Your task to perform on an android device: toggle wifi Image 0: 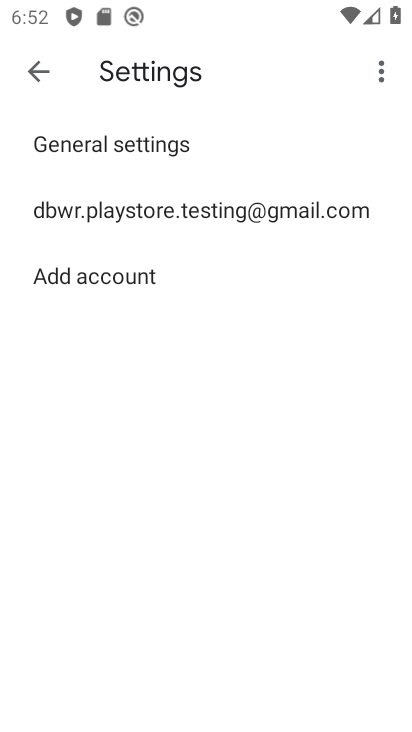
Step 0: press home button
Your task to perform on an android device: toggle wifi Image 1: 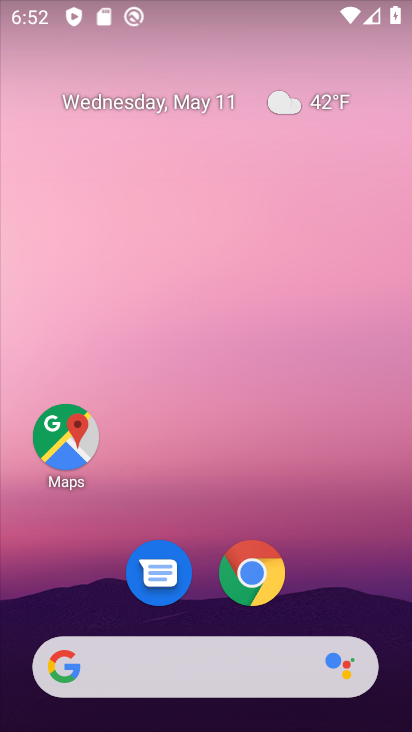
Step 1: drag from (323, 599) to (315, 172)
Your task to perform on an android device: toggle wifi Image 2: 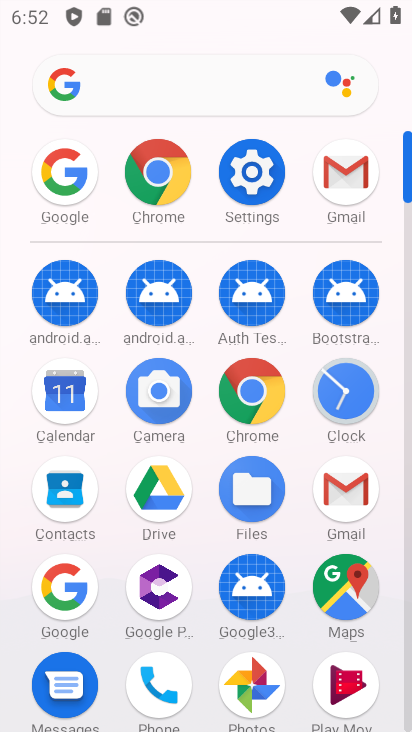
Step 2: click (256, 182)
Your task to perform on an android device: toggle wifi Image 3: 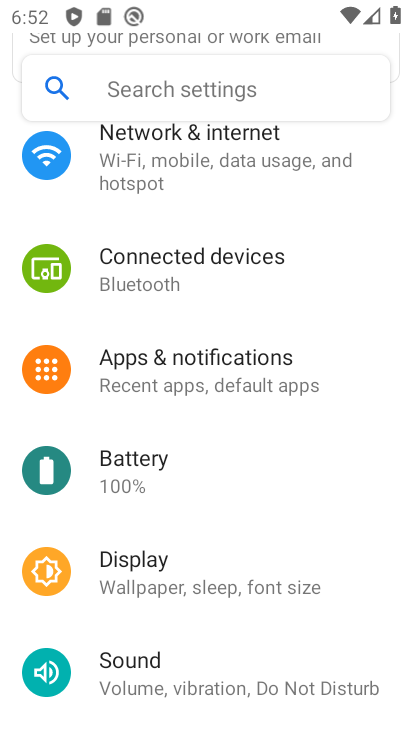
Step 3: click (232, 164)
Your task to perform on an android device: toggle wifi Image 4: 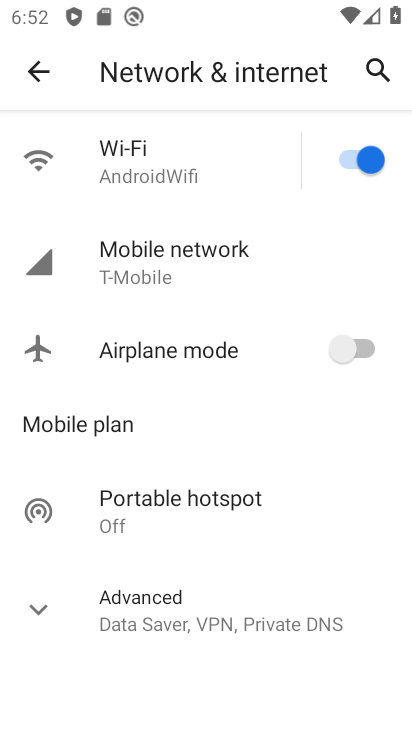
Step 4: click (351, 161)
Your task to perform on an android device: toggle wifi Image 5: 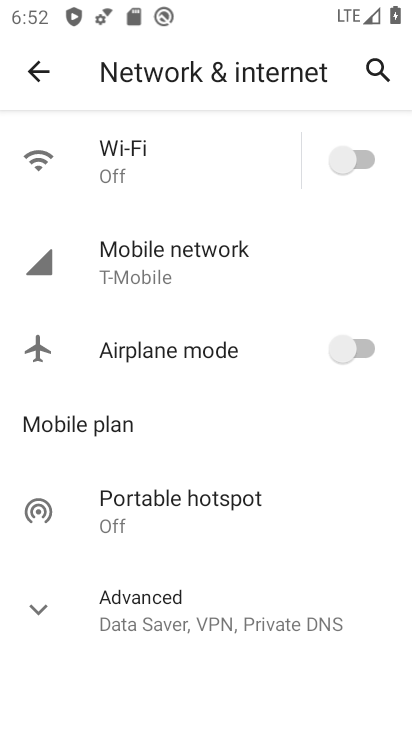
Step 5: task complete